Your task to perform on an android device: open app "Facebook Messenger" (install if not already installed) Image 0: 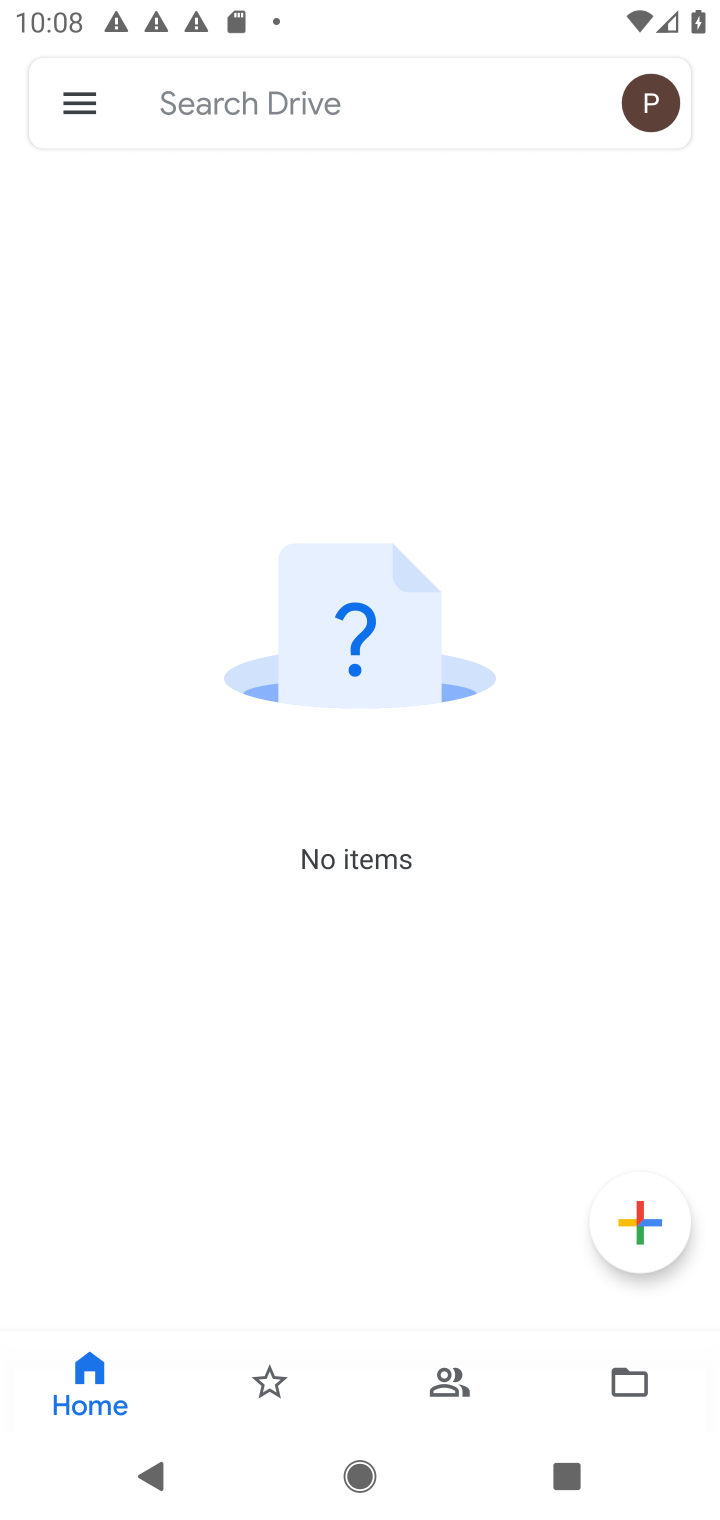
Step 0: press home button
Your task to perform on an android device: open app "Facebook Messenger" (install if not already installed) Image 1: 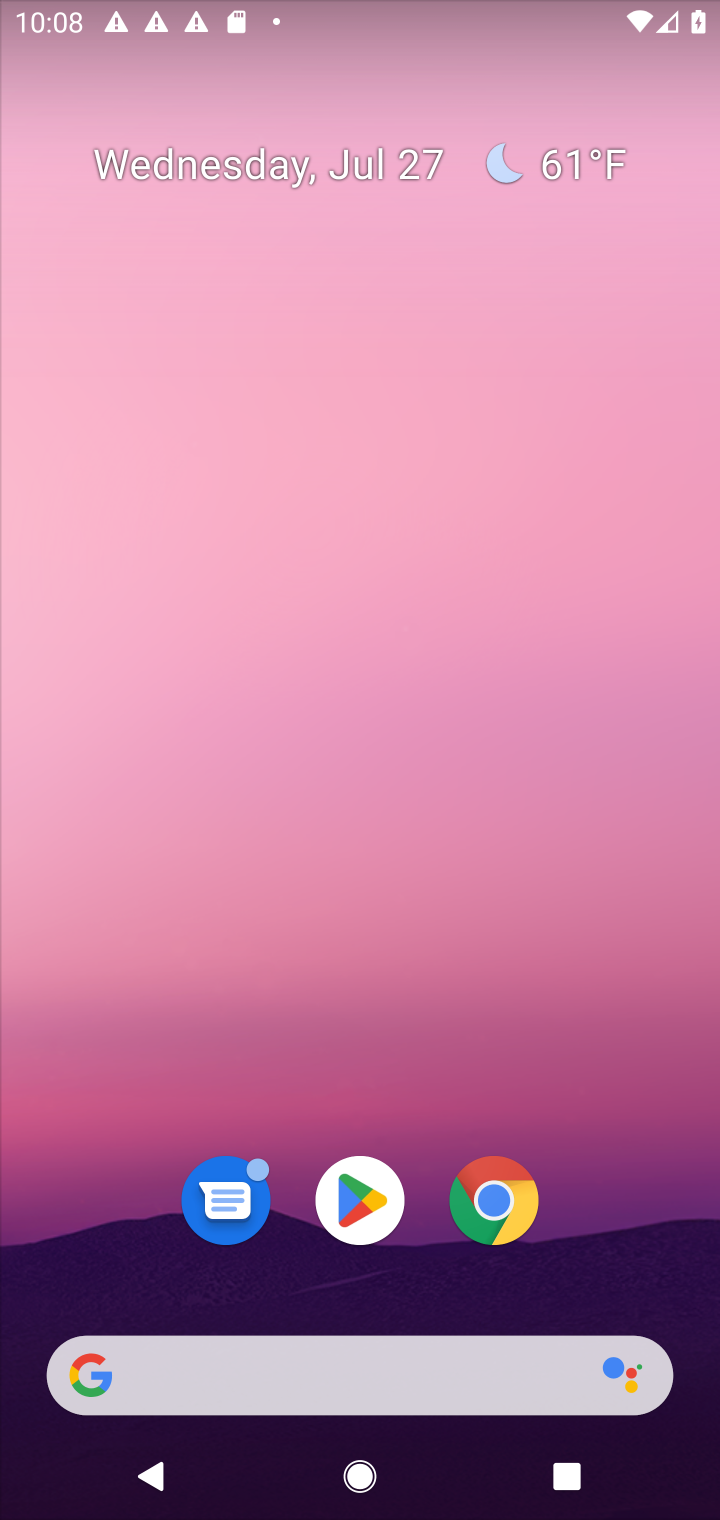
Step 1: click (362, 1209)
Your task to perform on an android device: open app "Facebook Messenger" (install if not already installed) Image 2: 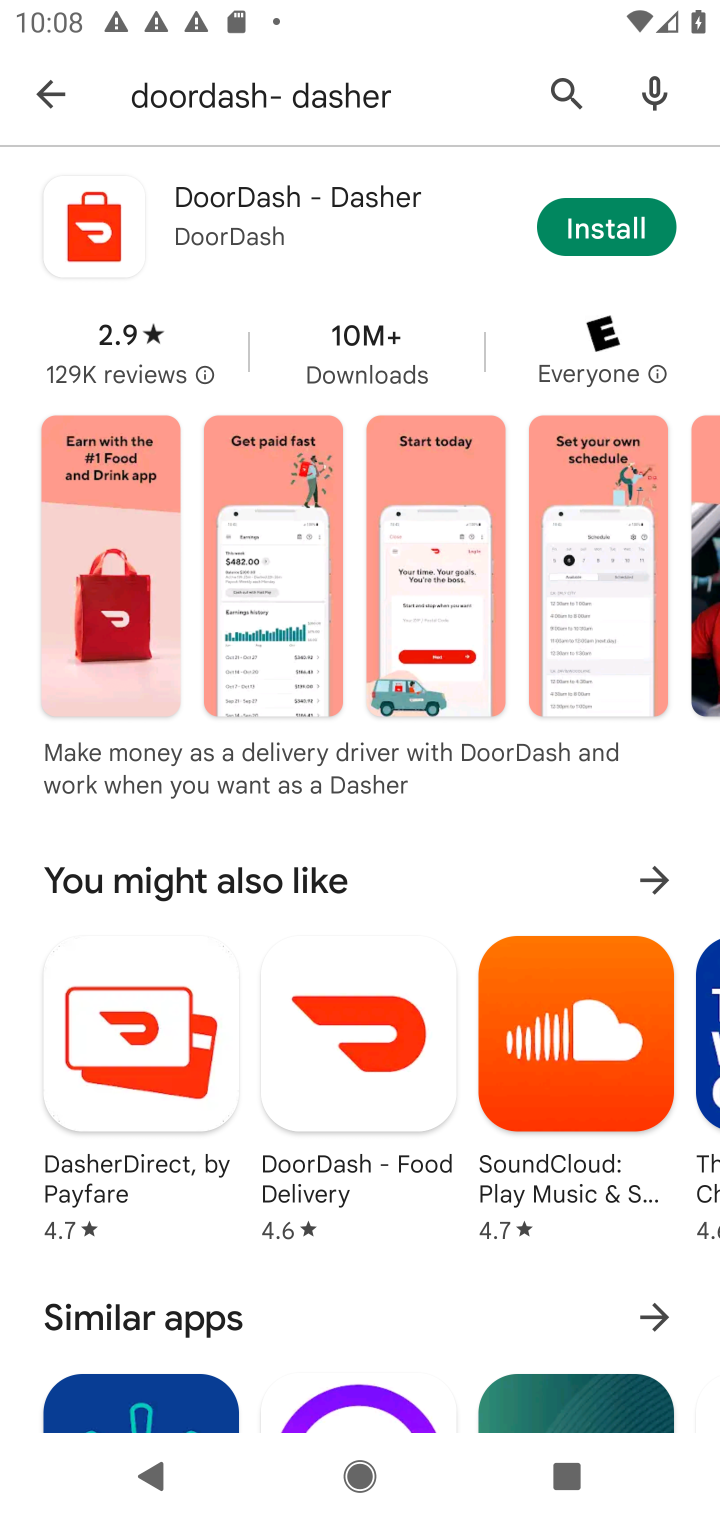
Step 2: click (577, 76)
Your task to perform on an android device: open app "Facebook Messenger" (install if not already installed) Image 3: 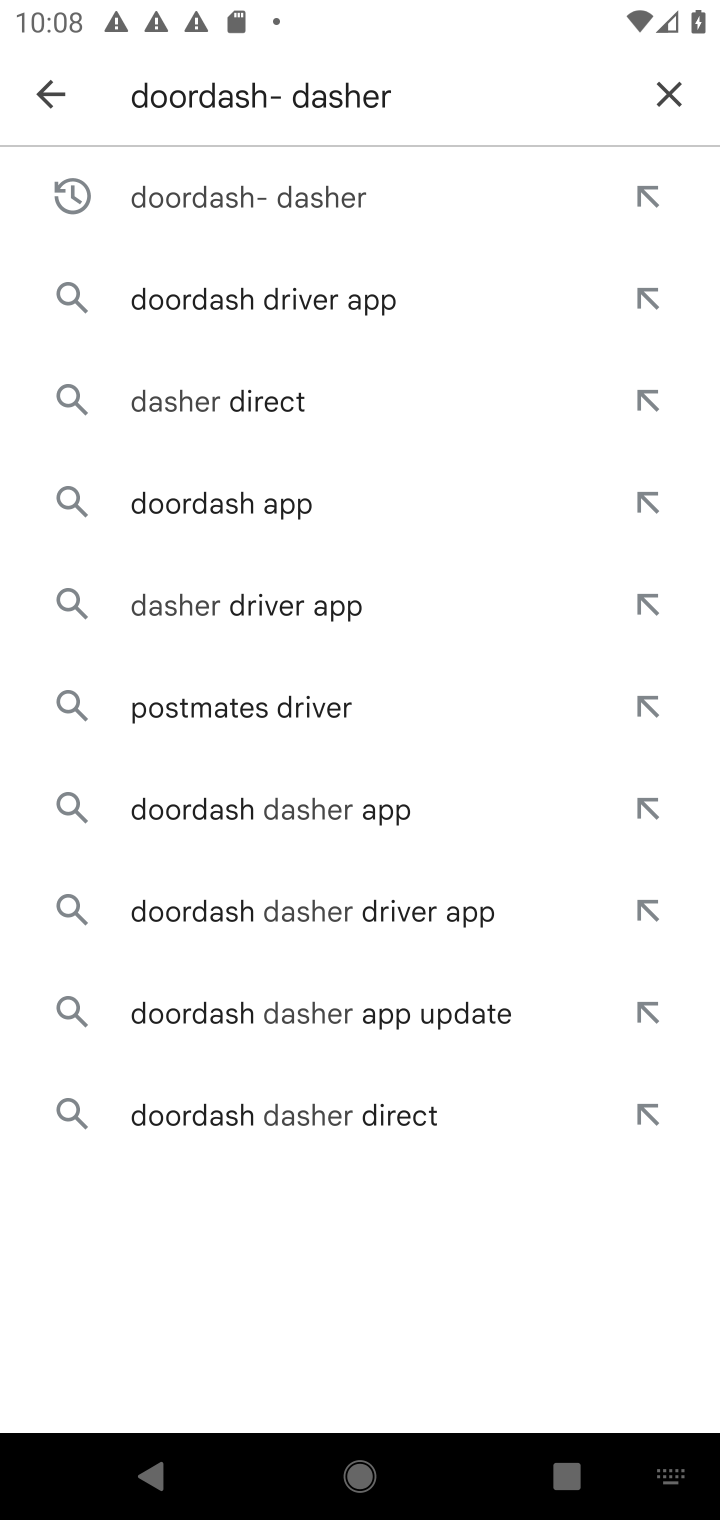
Step 3: click (666, 94)
Your task to perform on an android device: open app "Facebook Messenger" (install if not already installed) Image 4: 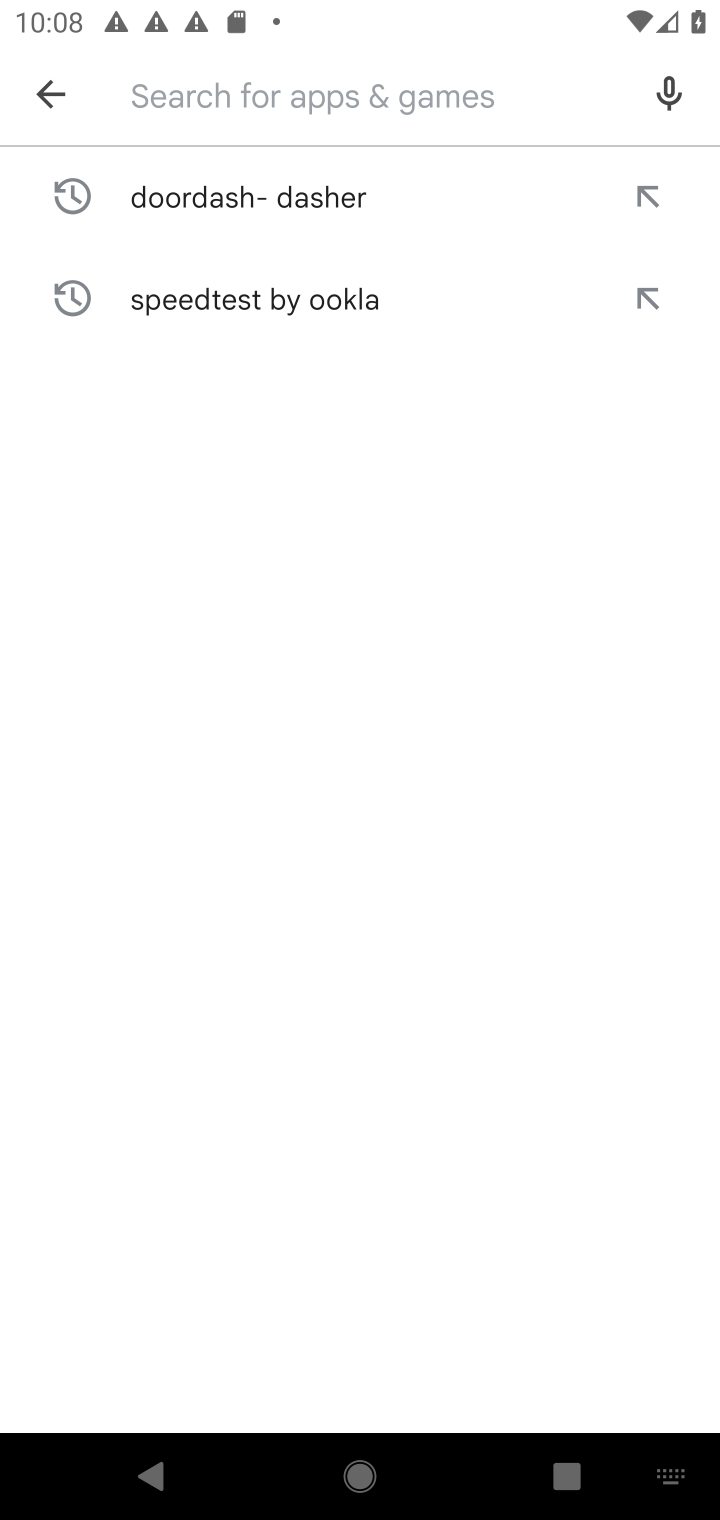
Step 4: click (298, 93)
Your task to perform on an android device: open app "Facebook Messenger" (install if not already installed) Image 5: 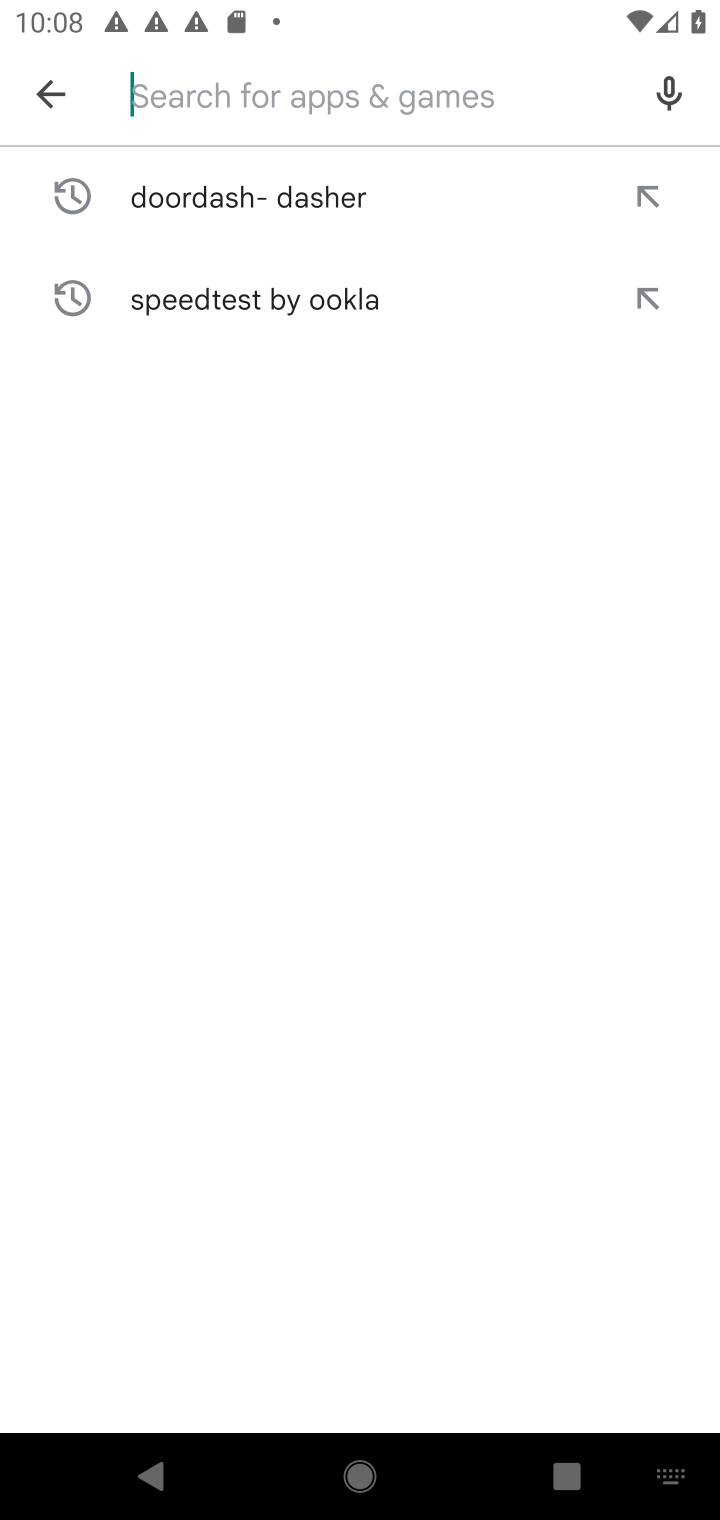
Step 5: type "facebook messenger"
Your task to perform on an android device: open app "Facebook Messenger" (install if not already installed) Image 6: 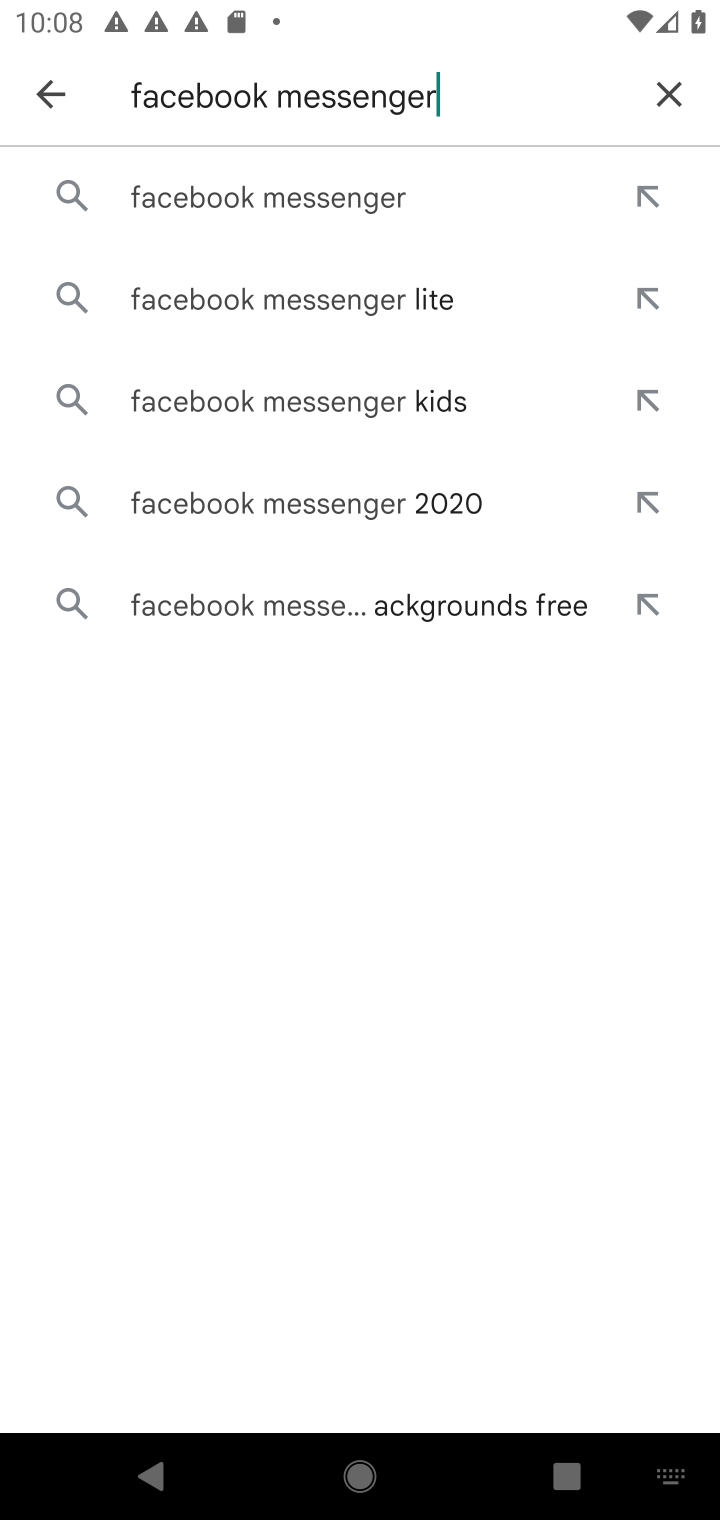
Step 6: click (317, 199)
Your task to perform on an android device: open app "Facebook Messenger" (install if not already installed) Image 7: 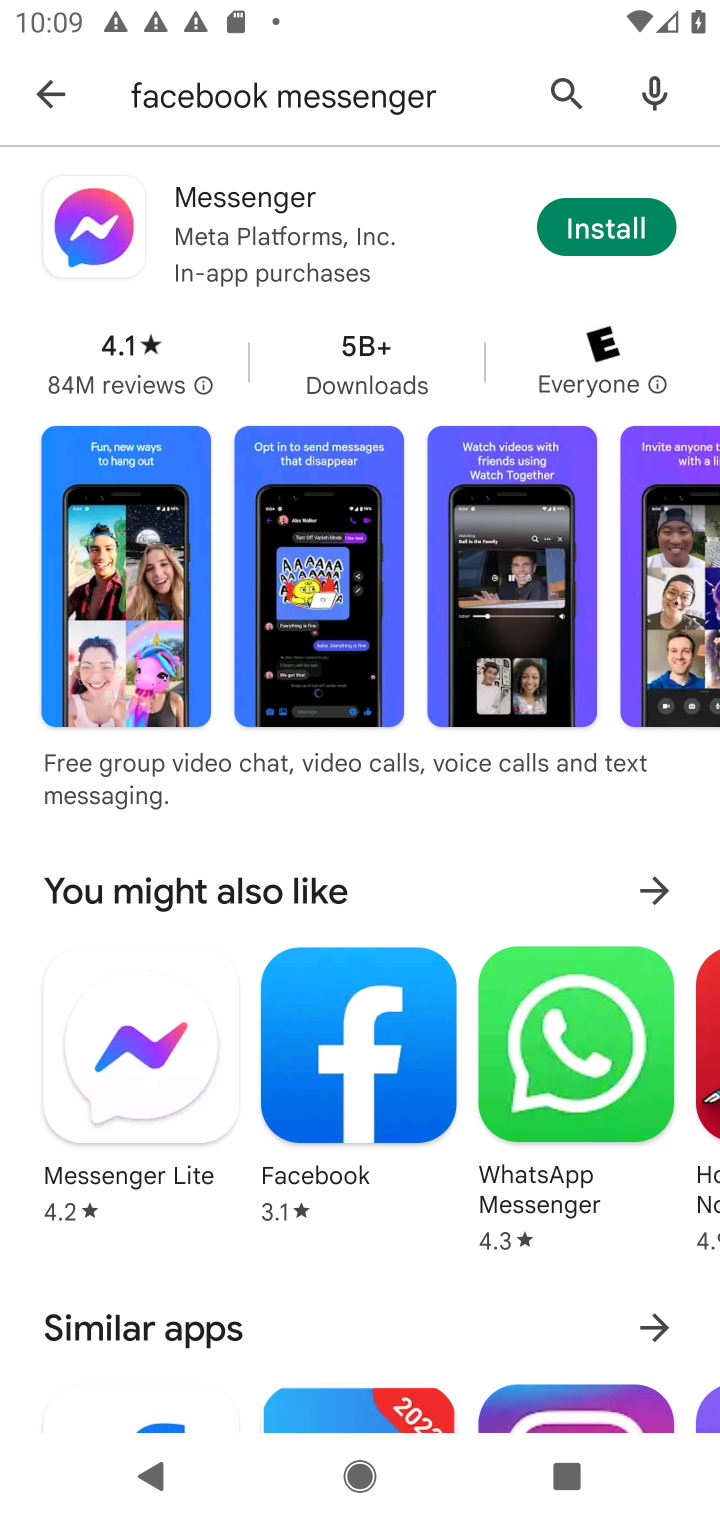
Step 7: click (591, 221)
Your task to perform on an android device: open app "Facebook Messenger" (install if not already installed) Image 8: 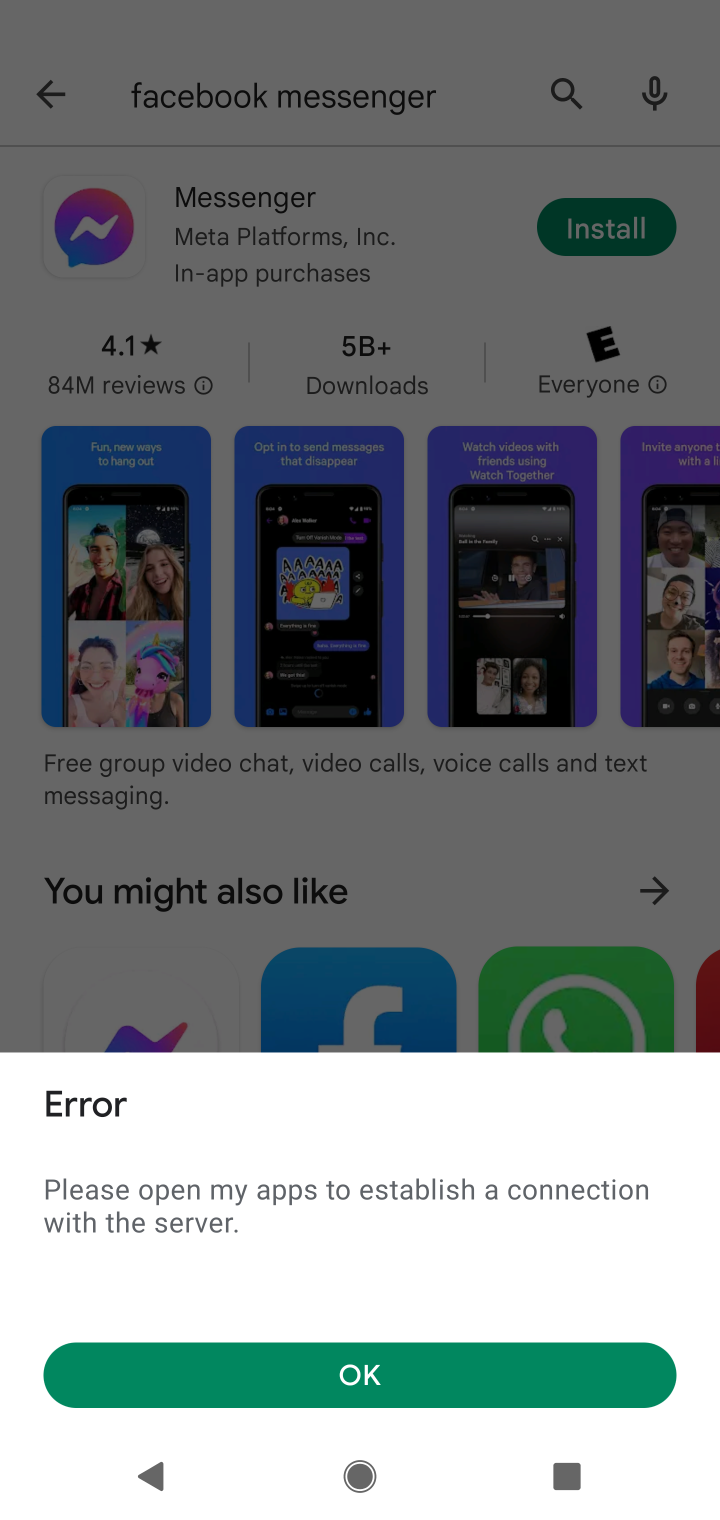
Step 8: click (358, 1384)
Your task to perform on an android device: open app "Facebook Messenger" (install if not already installed) Image 9: 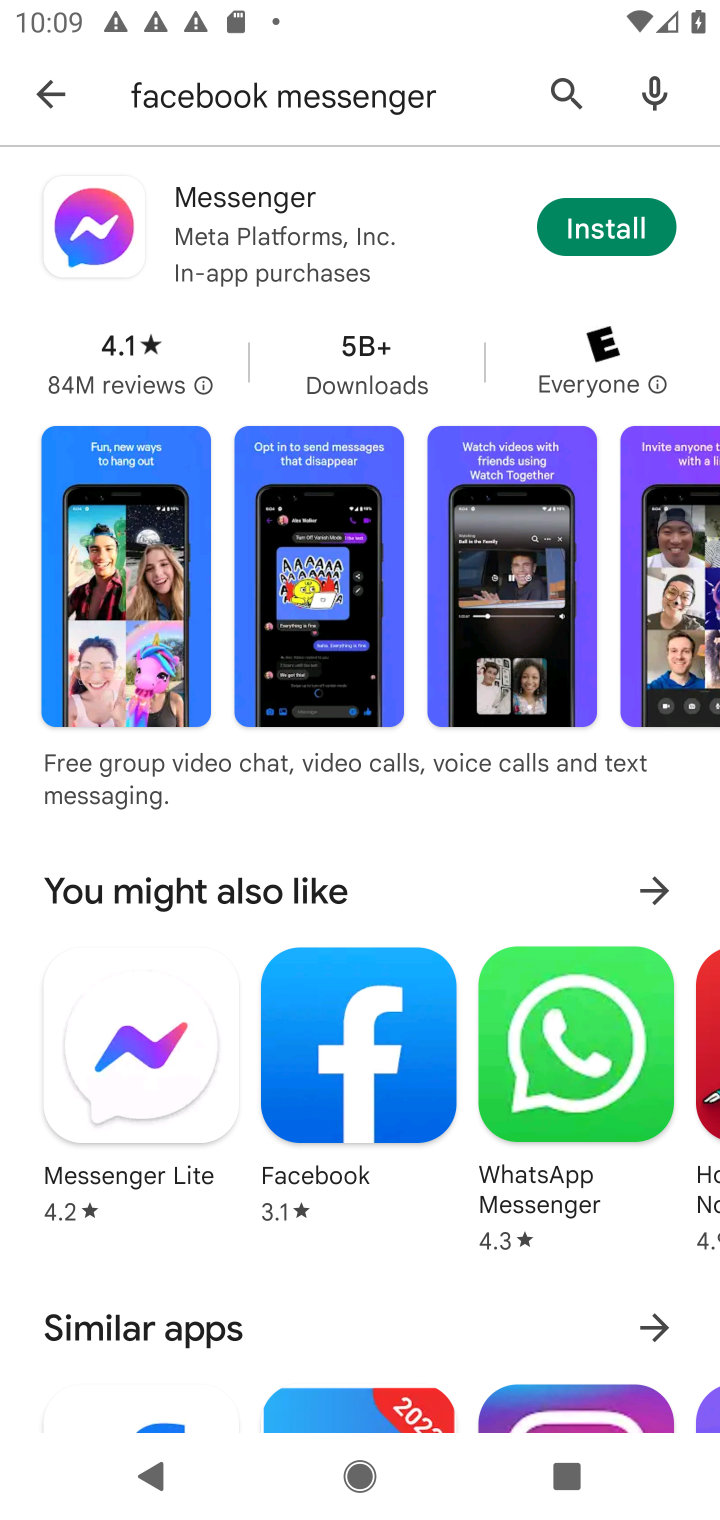
Step 9: click (585, 228)
Your task to perform on an android device: open app "Facebook Messenger" (install if not already installed) Image 10: 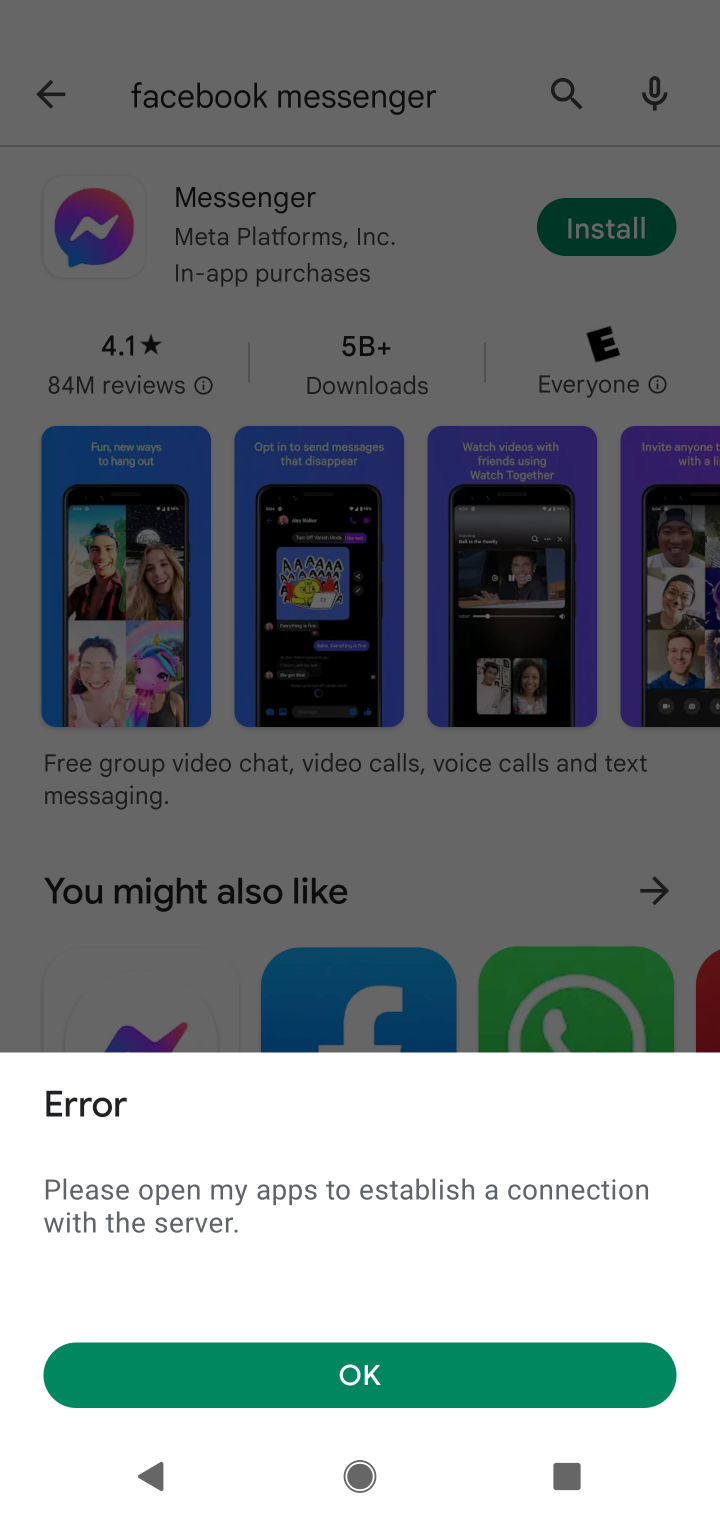
Step 10: click (359, 1375)
Your task to perform on an android device: open app "Facebook Messenger" (install if not already installed) Image 11: 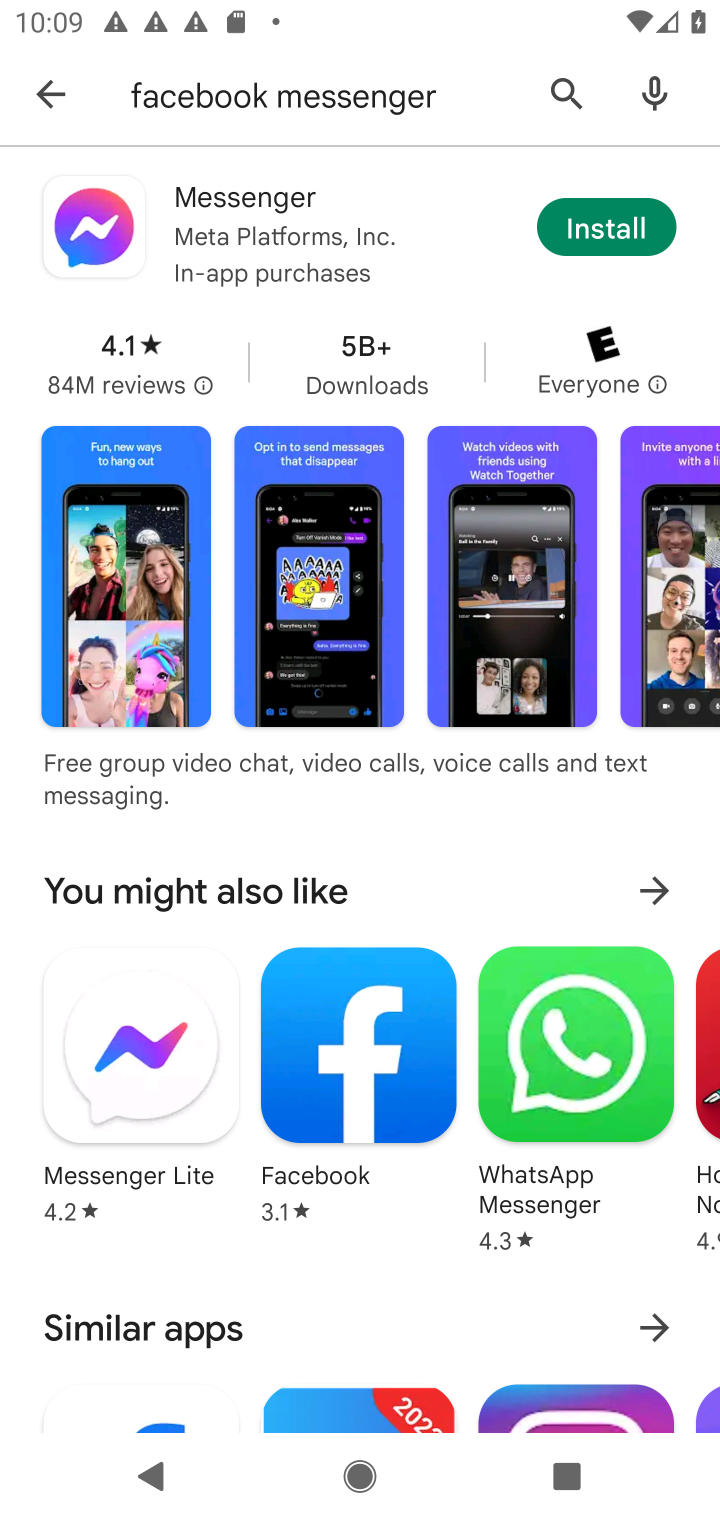
Step 11: click (602, 215)
Your task to perform on an android device: open app "Facebook Messenger" (install if not already installed) Image 12: 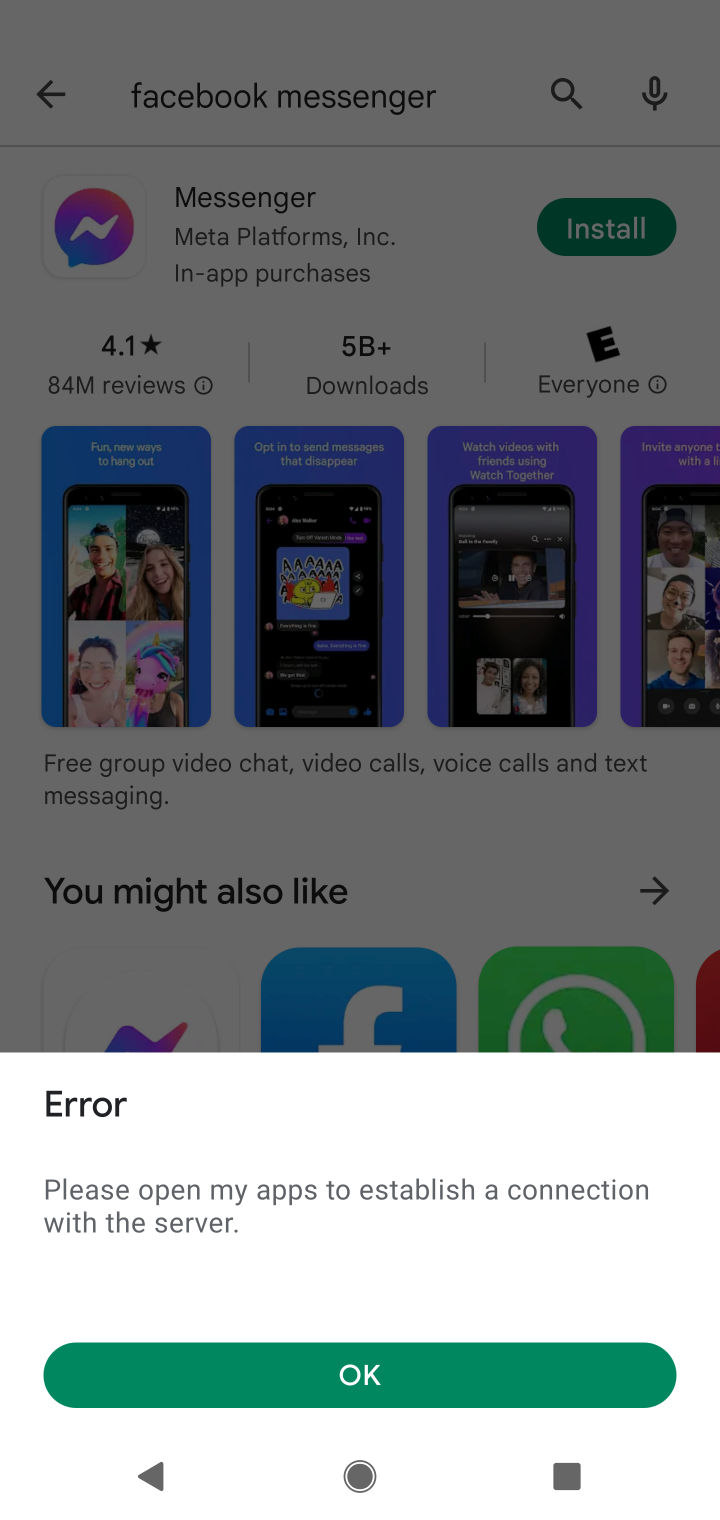
Step 12: click (384, 1371)
Your task to perform on an android device: open app "Facebook Messenger" (install if not already installed) Image 13: 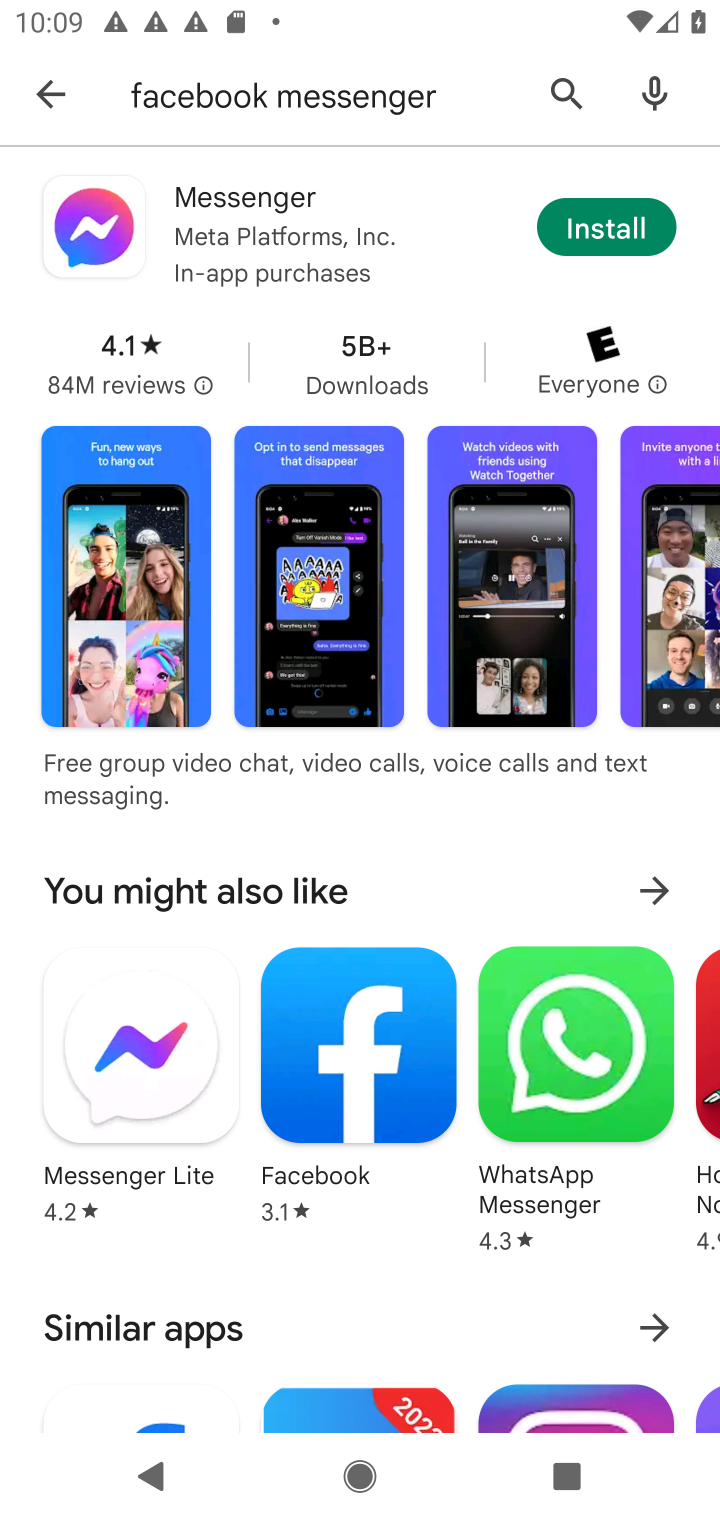
Step 13: click (600, 213)
Your task to perform on an android device: open app "Facebook Messenger" (install if not already installed) Image 14: 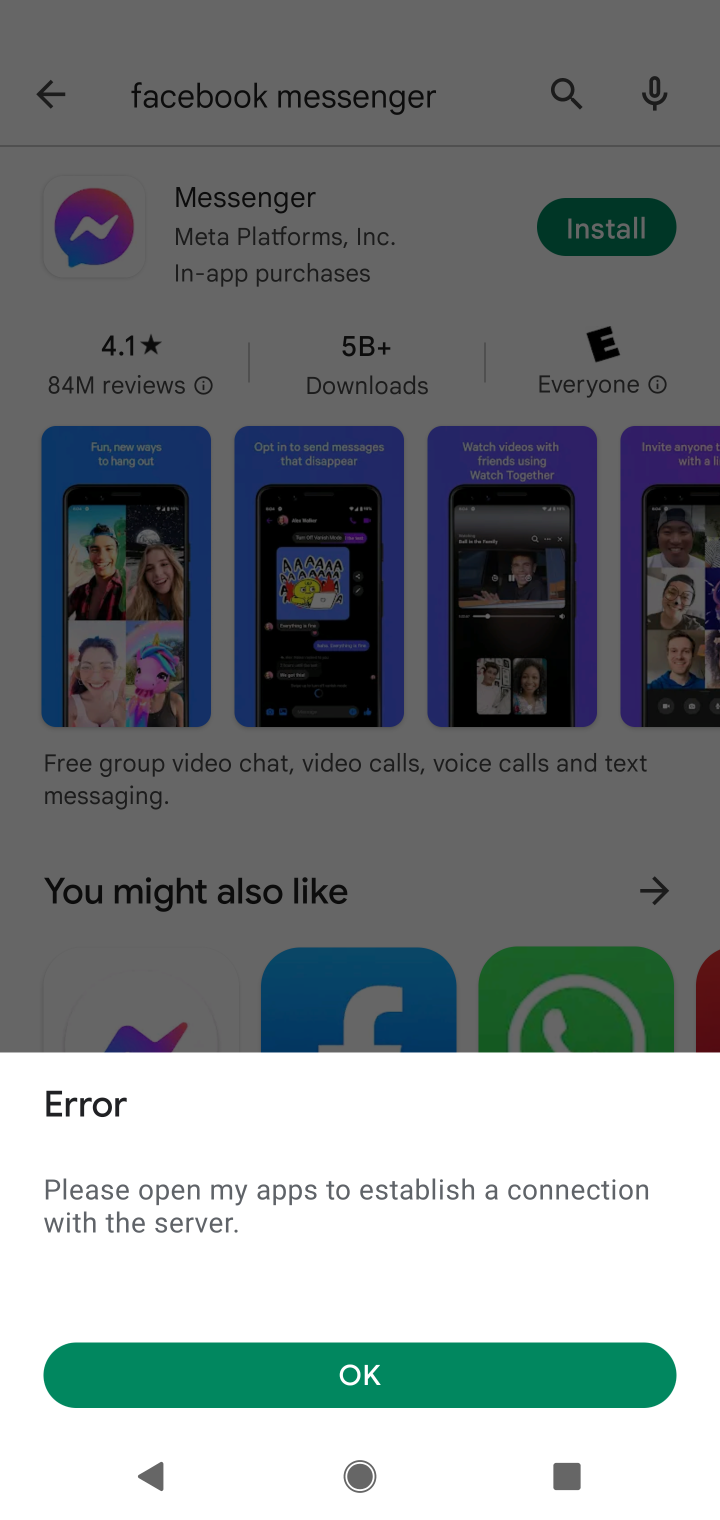
Step 14: click (354, 1373)
Your task to perform on an android device: open app "Facebook Messenger" (install if not already installed) Image 15: 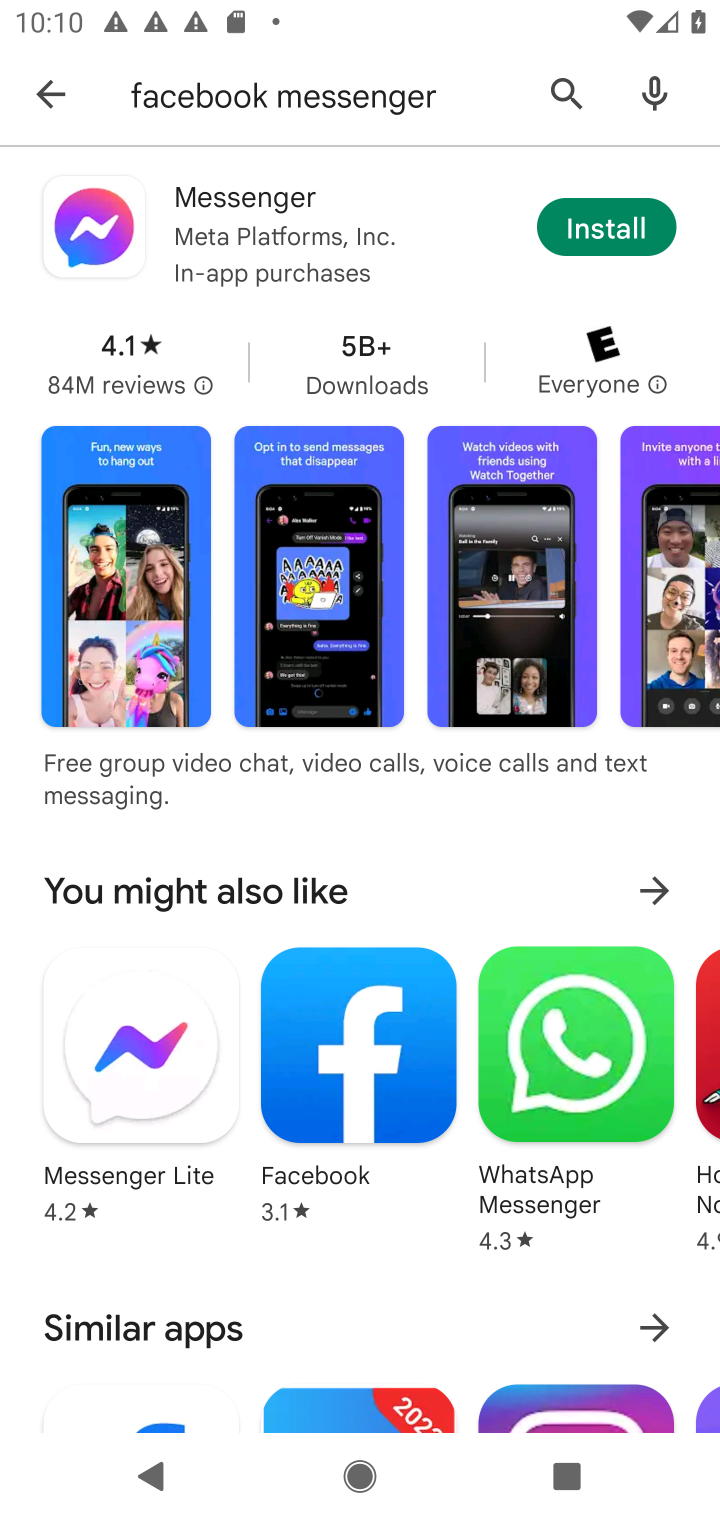
Step 15: click (583, 235)
Your task to perform on an android device: open app "Facebook Messenger" (install if not already installed) Image 16: 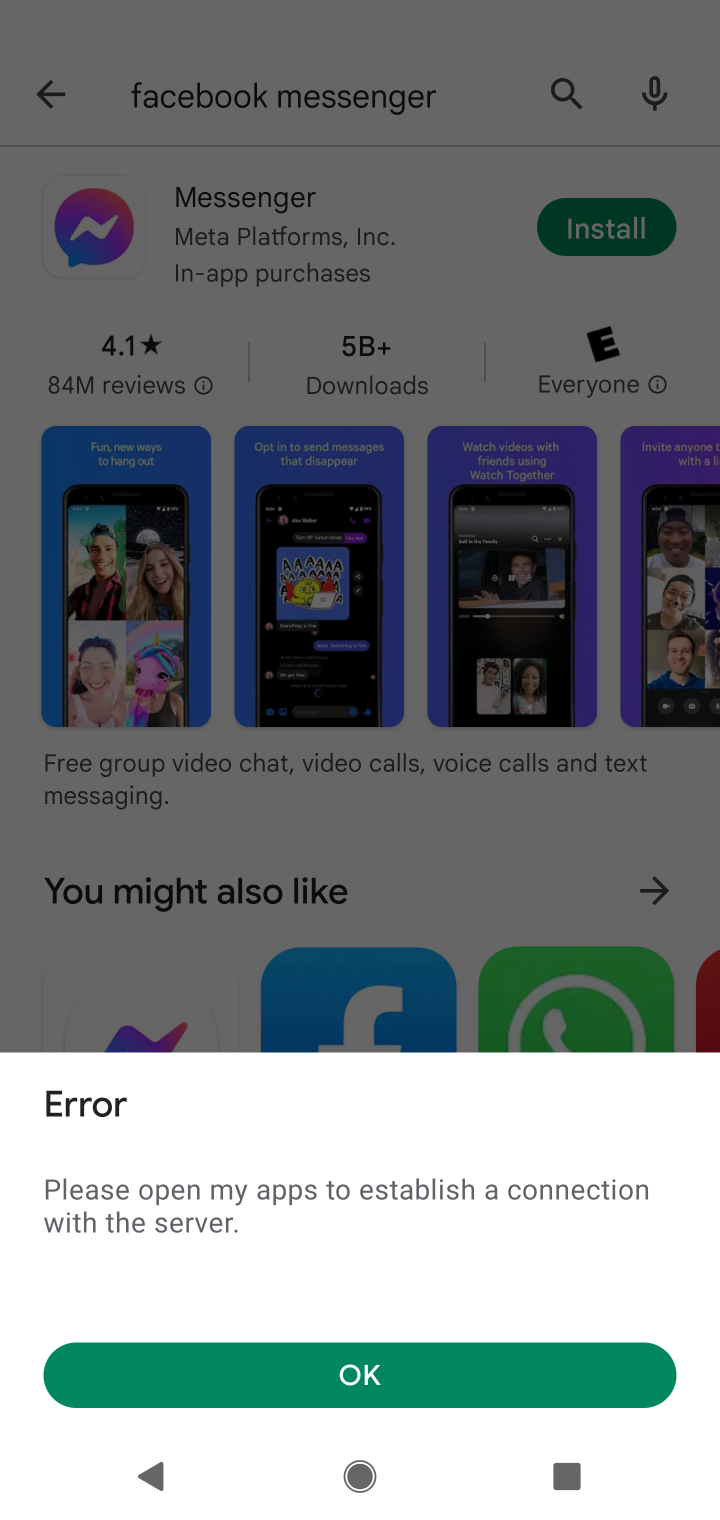
Step 16: click (369, 1363)
Your task to perform on an android device: open app "Facebook Messenger" (install if not already installed) Image 17: 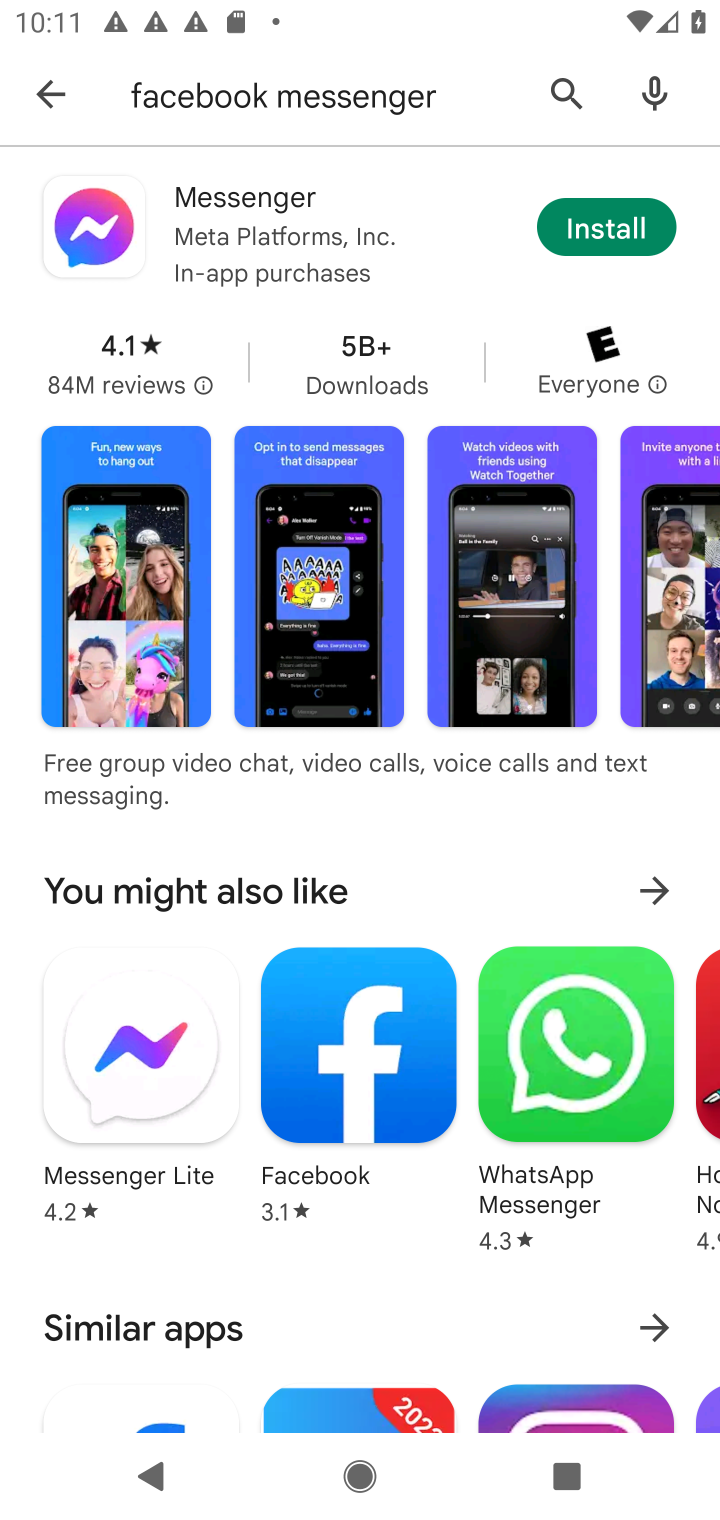
Step 17: click (579, 237)
Your task to perform on an android device: open app "Facebook Messenger" (install if not already installed) Image 18: 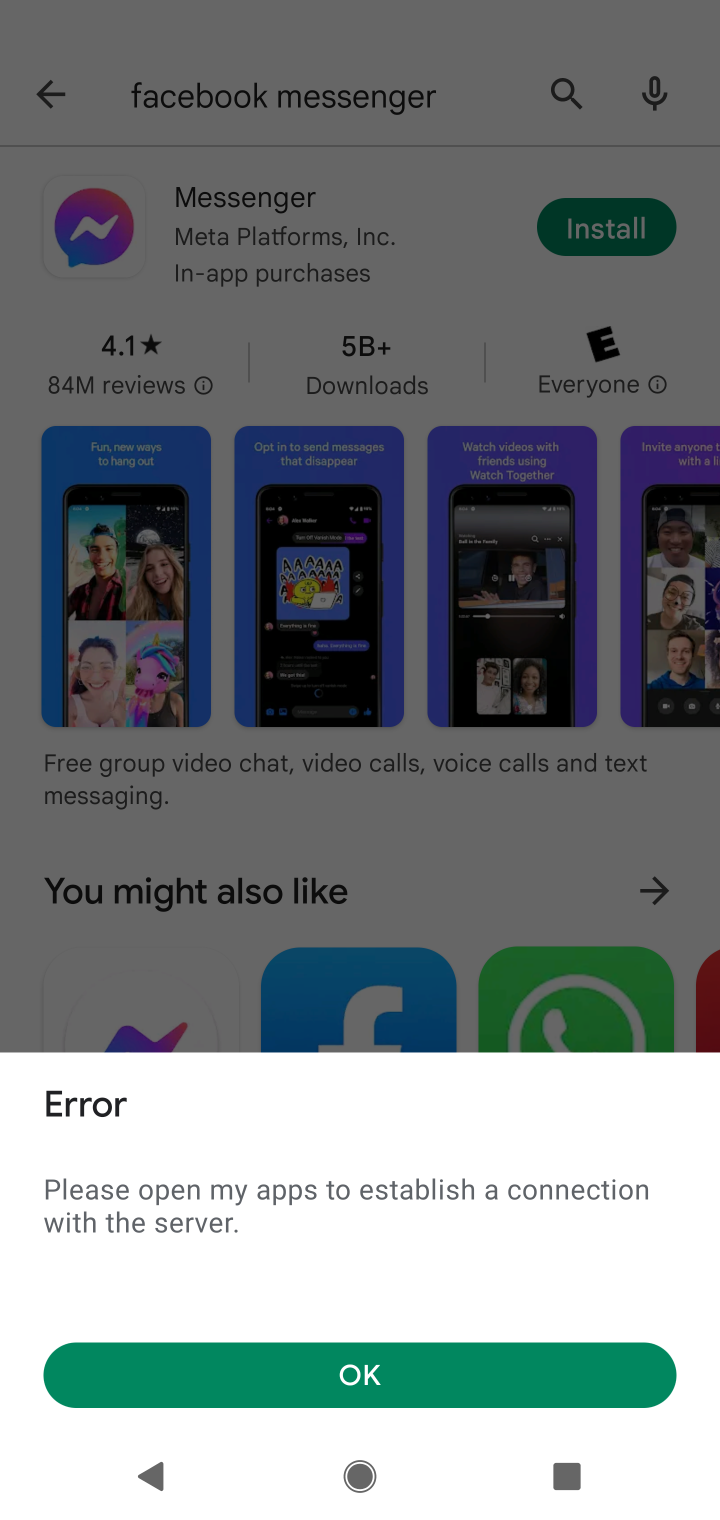
Step 18: task complete